Your task to perform on an android device: toggle javascript in the chrome app Image 0: 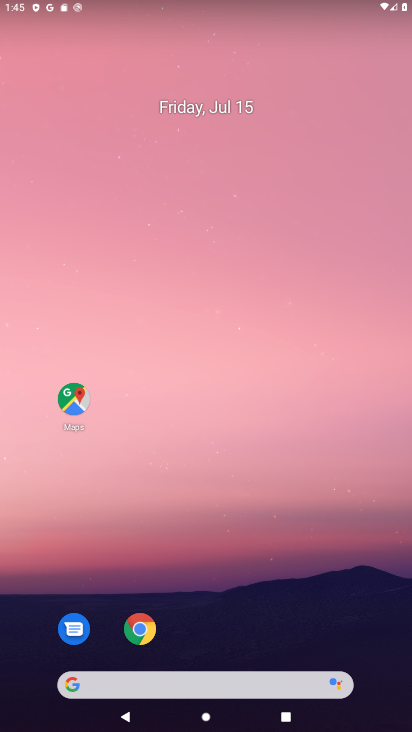
Step 0: click (137, 627)
Your task to perform on an android device: toggle javascript in the chrome app Image 1: 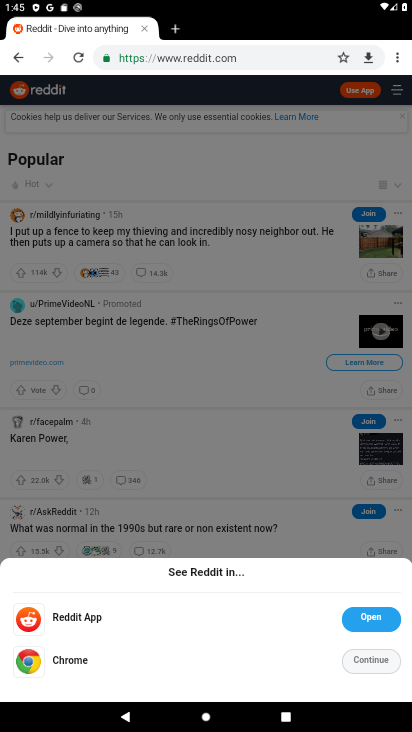
Step 1: click (400, 53)
Your task to perform on an android device: toggle javascript in the chrome app Image 2: 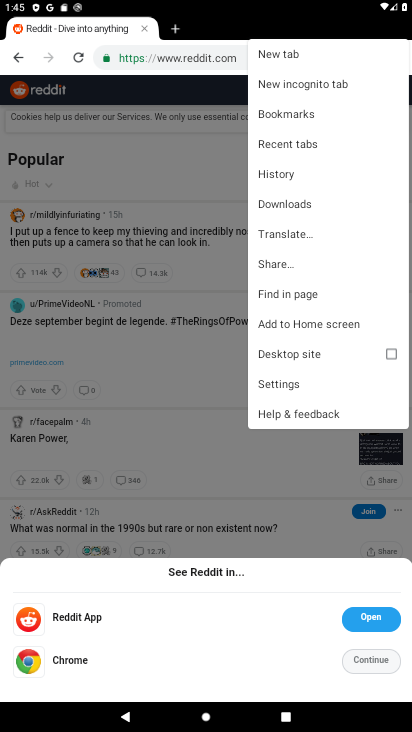
Step 2: click (274, 378)
Your task to perform on an android device: toggle javascript in the chrome app Image 3: 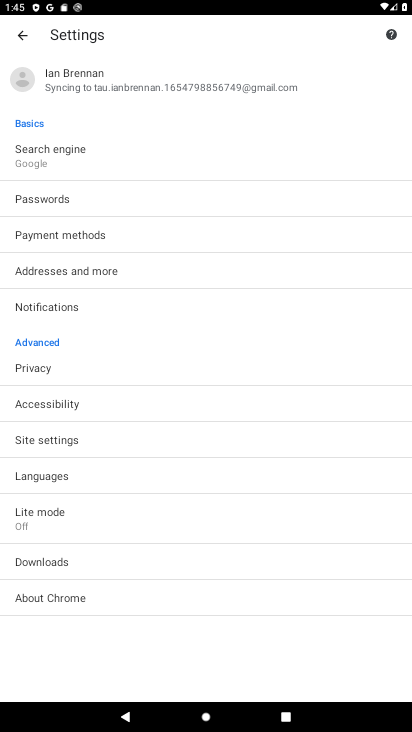
Step 3: click (57, 435)
Your task to perform on an android device: toggle javascript in the chrome app Image 4: 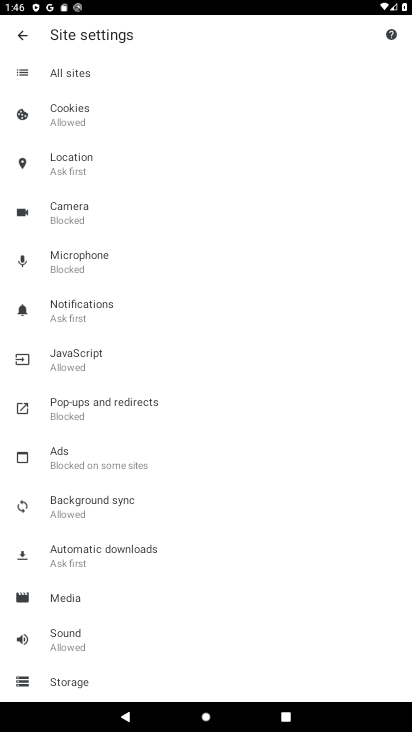
Step 4: click (85, 355)
Your task to perform on an android device: toggle javascript in the chrome app Image 5: 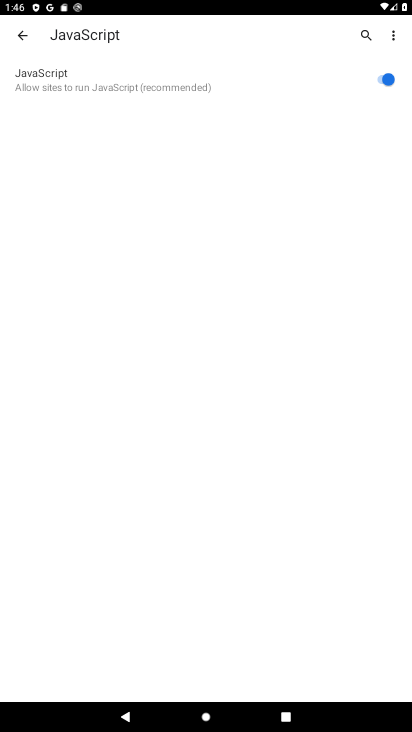
Step 5: click (377, 77)
Your task to perform on an android device: toggle javascript in the chrome app Image 6: 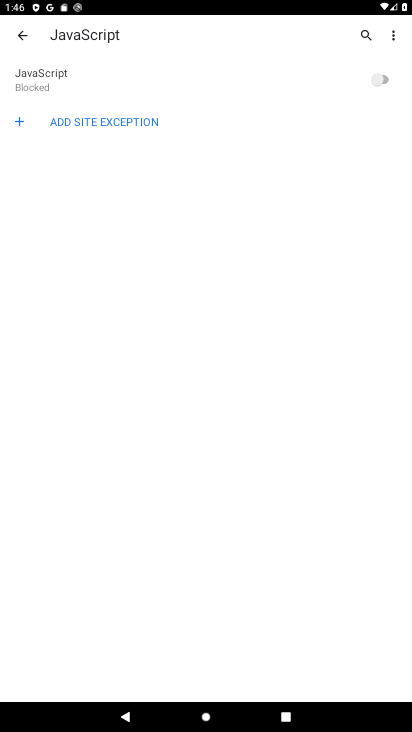
Step 6: task complete